Your task to perform on an android device: Open the calendar and show me this week's events? Image 0: 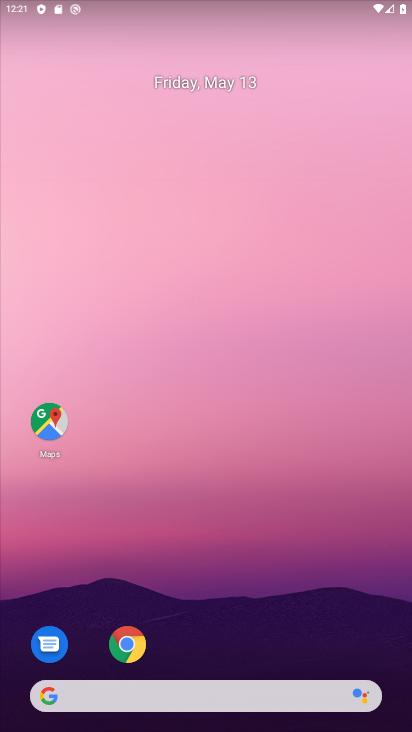
Step 0: click (213, 89)
Your task to perform on an android device: Open the calendar and show me this week's events? Image 1: 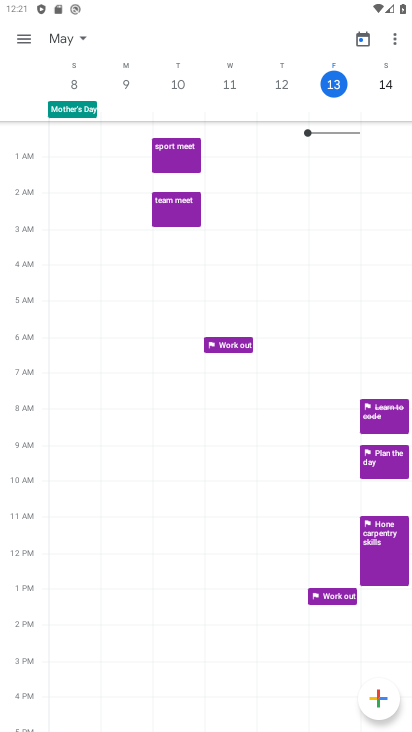
Step 1: task complete